Your task to perform on an android device: check the backup settings in the google photos Image 0: 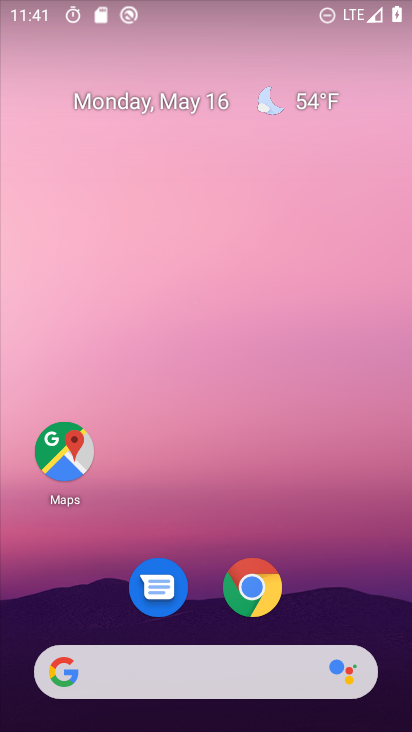
Step 0: drag from (214, 597) to (221, 4)
Your task to perform on an android device: check the backup settings in the google photos Image 1: 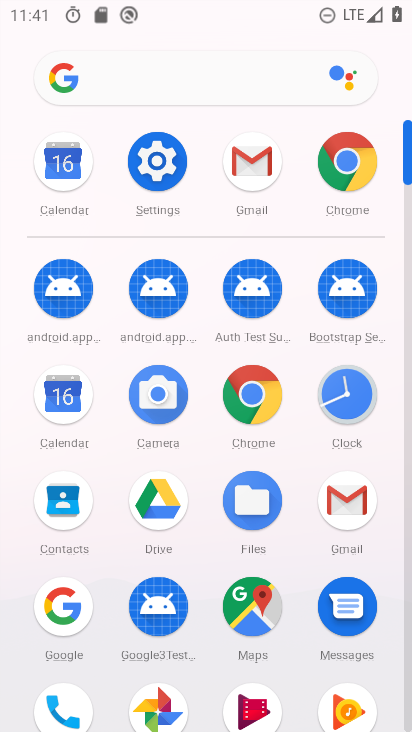
Step 1: drag from (212, 662) to (219, 330)
Your task to perform on an android device: check the backup settings in the google photos Image 2: 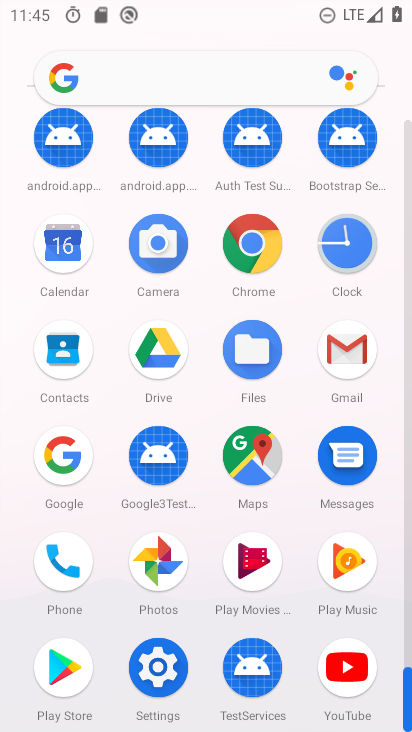
Step 2: click (155, 566)
Your task to perform on an android device: check the backup settings in the google photos Image 3: 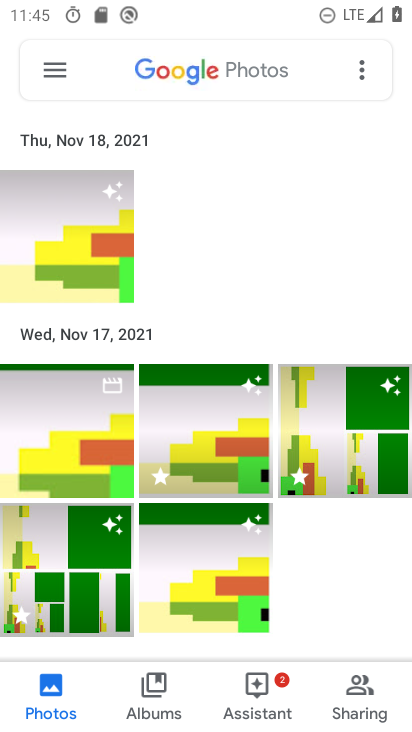
Step 3: drag from (221, 554) to (306, 182)
Your task to perform on an android device: check the backup settings in the google photos Image 4: 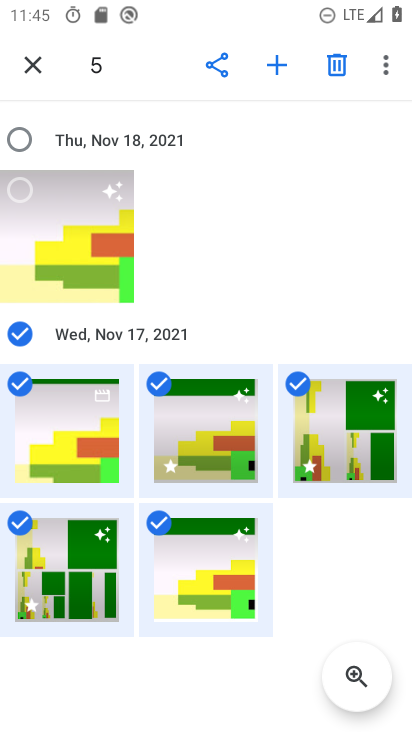
Step 4: click (21, 62)
Your task to perform on an android device: check the backup settings in the google photos Image 5: 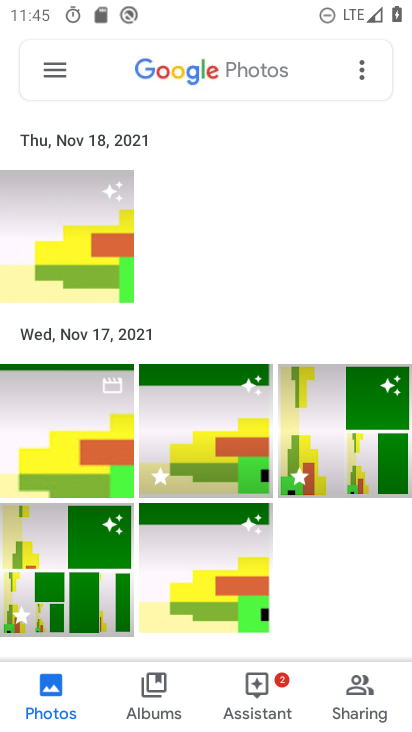
Step 5: click (87, 258)
Your task to perform on an android device: check the backup settings in the google photos Image 6: 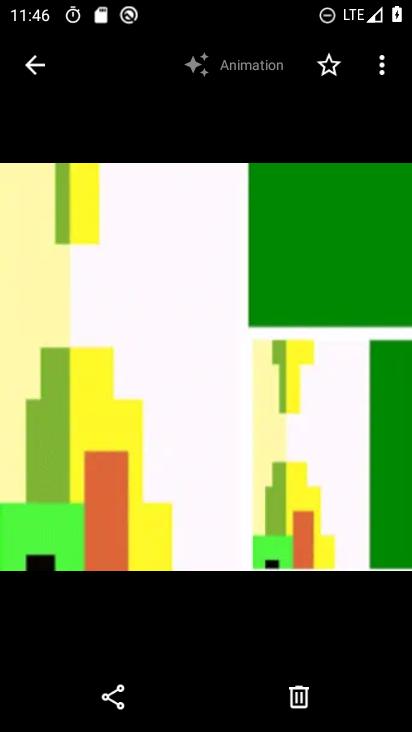
Step 6: drag from (349, 414) to (28, 243)
Your task to perform on an android device: check the backup settings in the google photos Image 7: 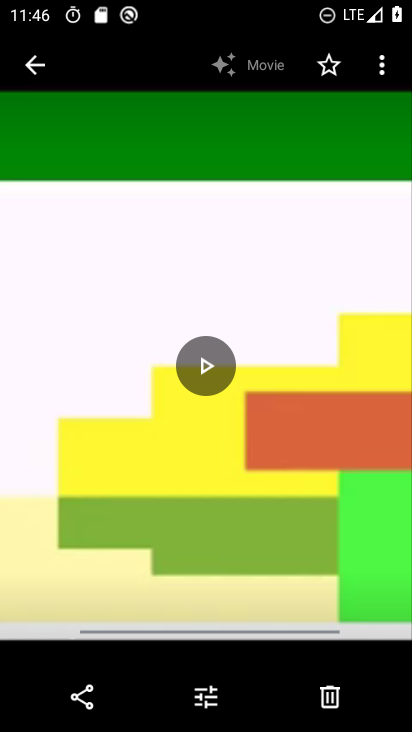
Step 7: click (34, 78)
Your task to perform on an android device: check the backup settings in the google photos Image 8: 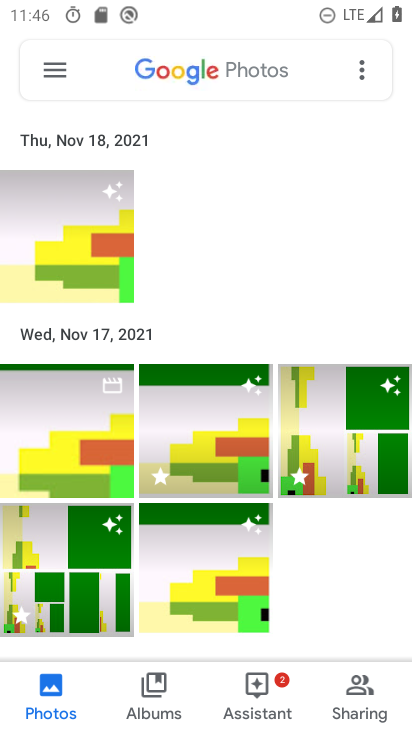
Step 8: click (198, 434)
Your task to perform on an android device: check the backup settings in the google photos Image 9: 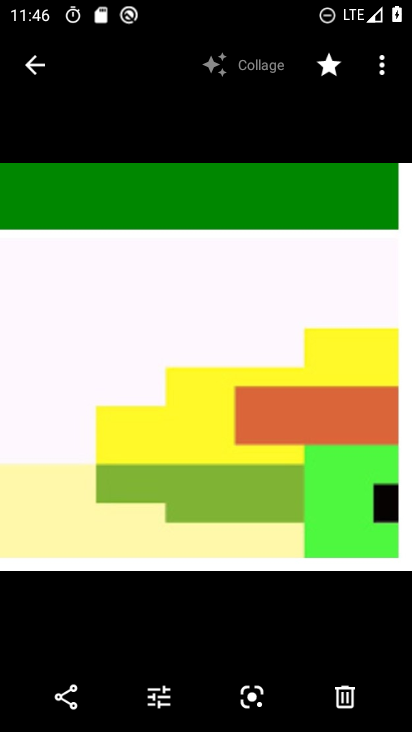
Step 9: click (44, 75)
Your task to perform on an android device: check the backup settings in the google photos Image 10: 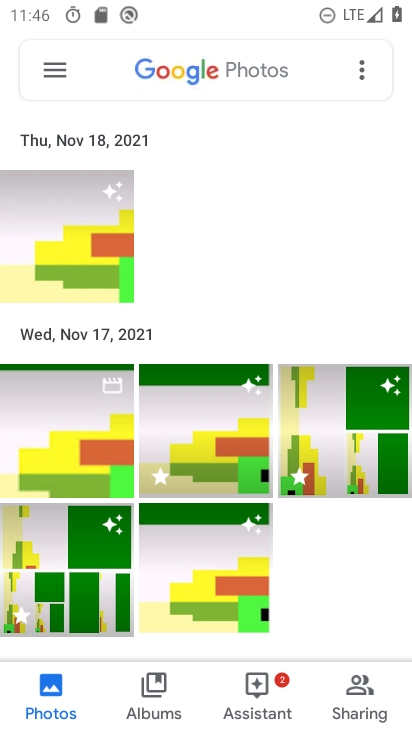
Step 10: click (371, 49)
Your task to perform on an android device: check the backup settings in the google photos Image 11: 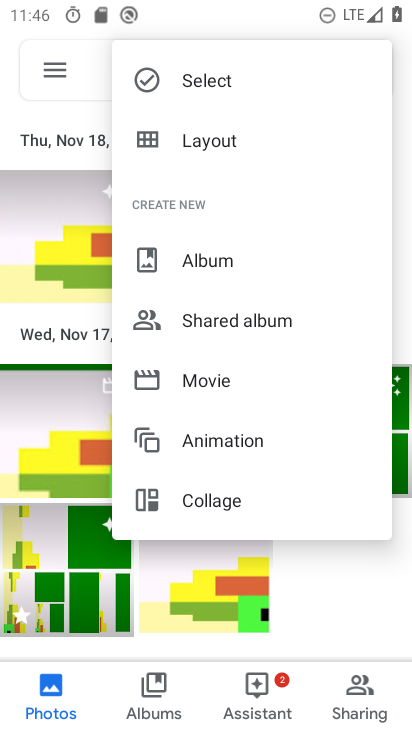
Step 11: click (62, 67)
Your task to perform on an android device: check the backup settings in the google photos Image 12: 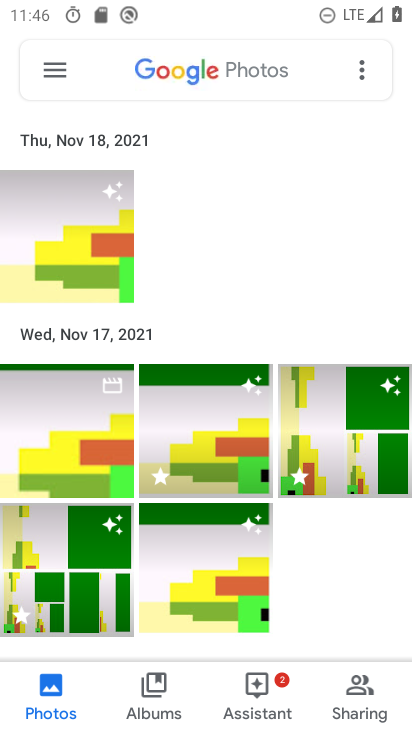
Step 12: click (58, 68)
Your task to perform on an android device: check the backup settings in the google photos Image 13: 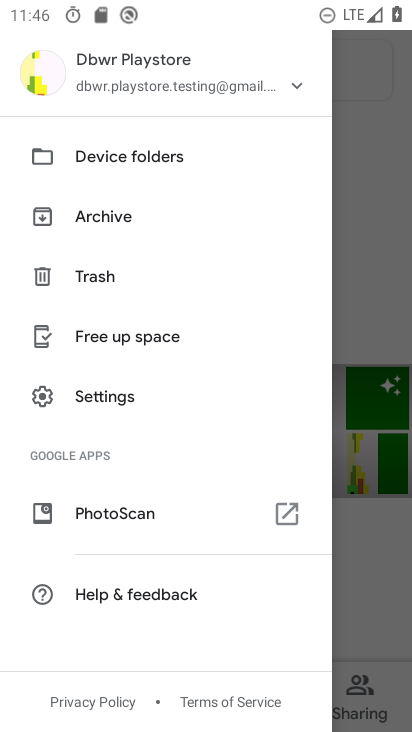
Step 13: click (112, 418)
Your task to perform on an android device: check the backup settings in the google photos Image 14: 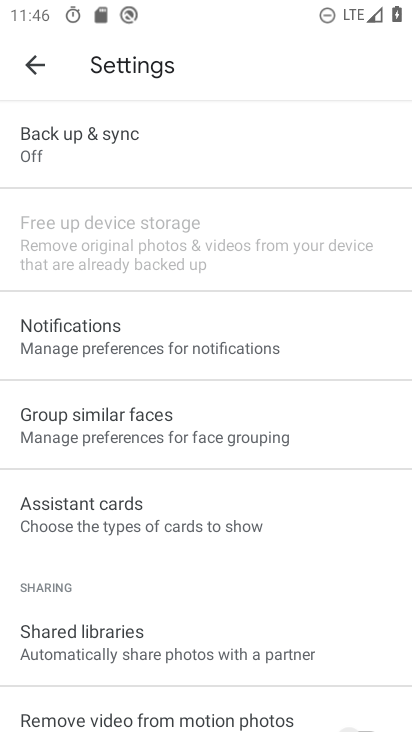
Step 14: click (161, 152)
Your task to perform on an android device: check the backup settings in the google photos Image 15: 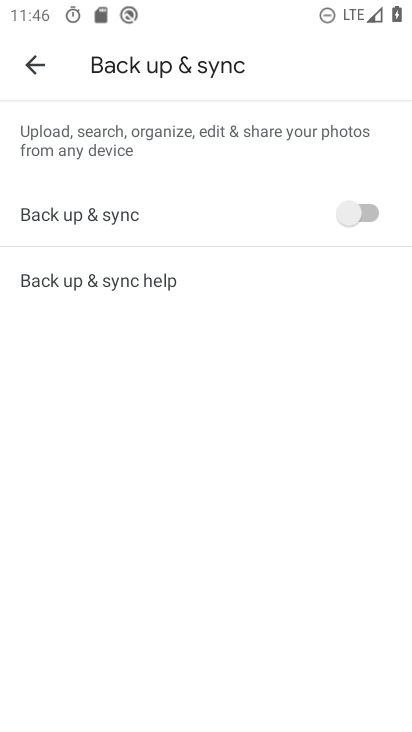
Step 15: drag from (210, 466) to (232, 151)
Your task to perform on an android device: check the backup settings in the google photos Image 16: 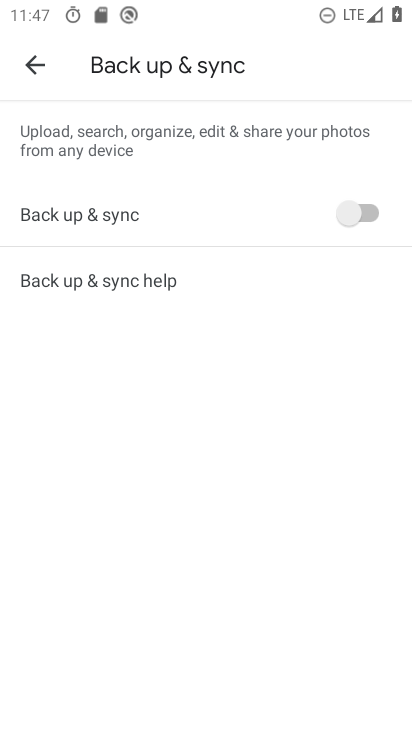
Step 16: click (341, 210)
Your task to perform on an android device: check the backup settings in the google photos Image 17: 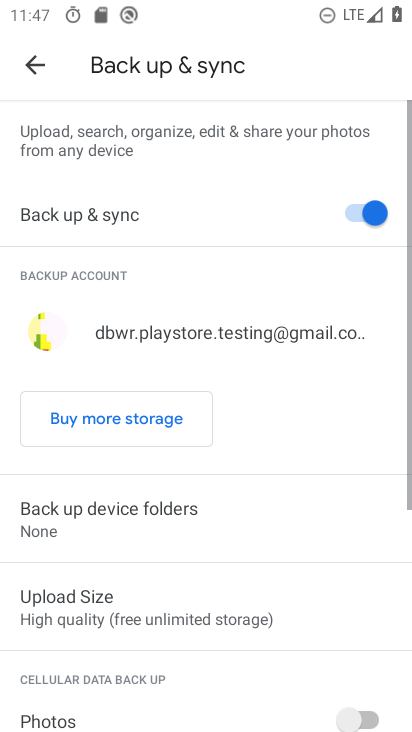
Step 17: task complete